Your task to perform on an android device: Go to privacy settings Image 0: 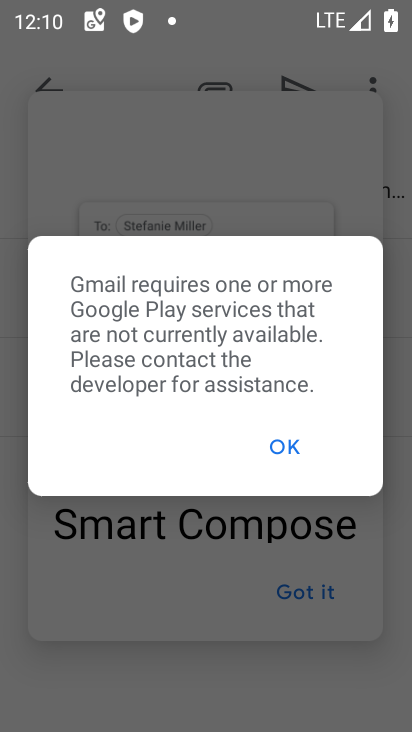
Step 0: press home button
Your task to perform on an android device: Go to privacy settings Image 1: 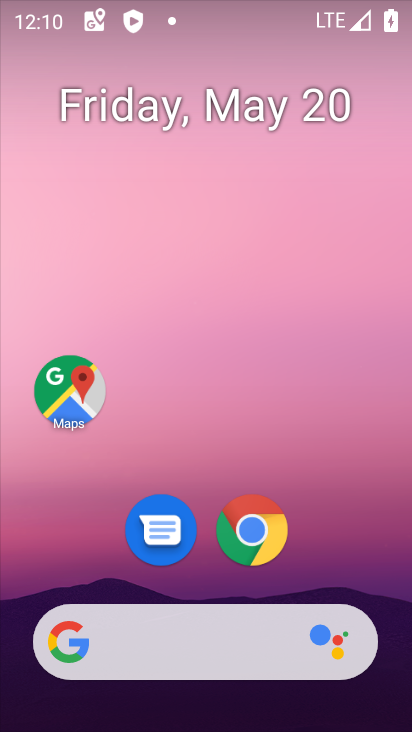
Step 1: drag from (92, 715) to (235, 104)
Your task to perform on an android device: Go to privacy settings Image 2: 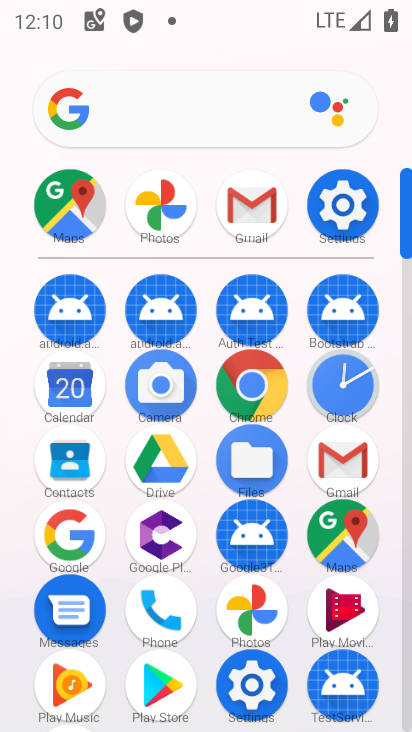
Step 2: click (346, 205)
Your task to perform on an android device: Go to privacy settings Image 3: 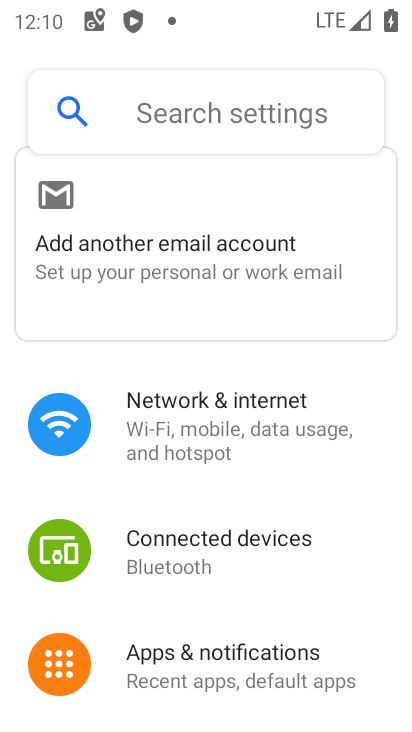
Step 3: drag from (282, 666) to (325, 199)
Your task to perform on an android device: Go to privacy settings Image 4: 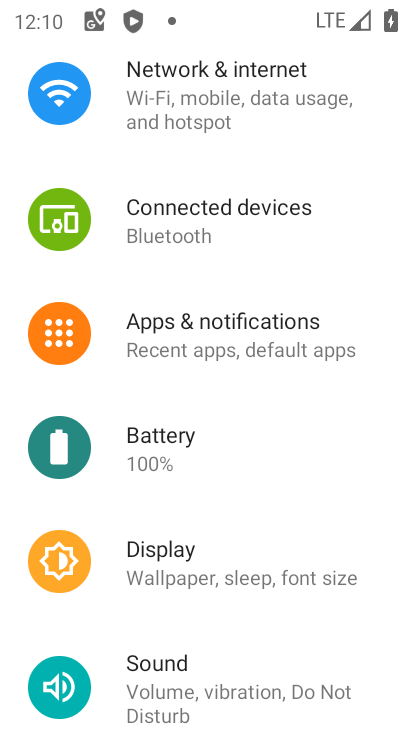
Step 4: drag from (271, 657) to (310, 228)
Your task to perform on an android device: Go to privacy settings Image 5: 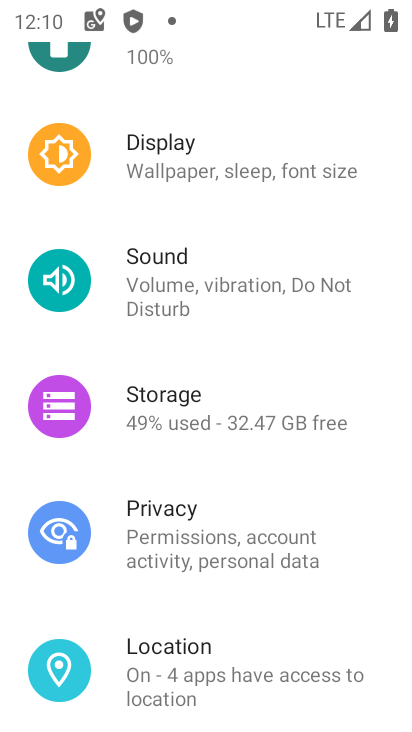
Step 5: click (202, 550)
Your task to perform on an android device: Go to privacy settings Image 6: 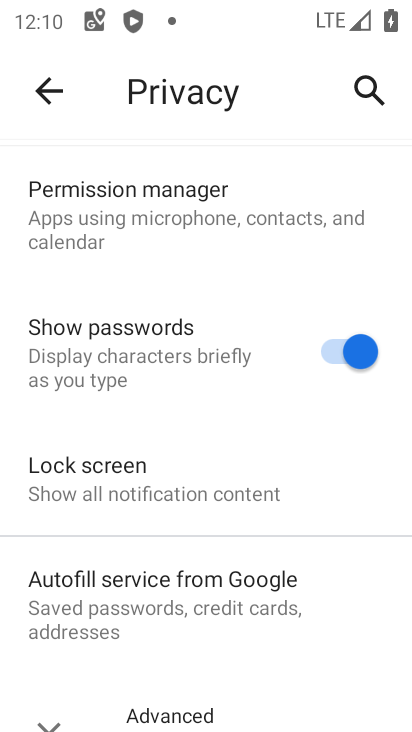
Step 6: task complete